Your task to perform on an android device: Show me recent news Image 0: 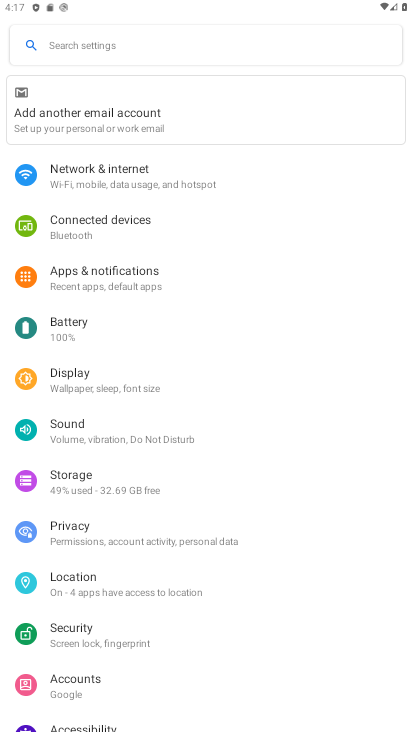
Step 0: press home button
Your task to perform on an android device: Show me recent news Image 1: 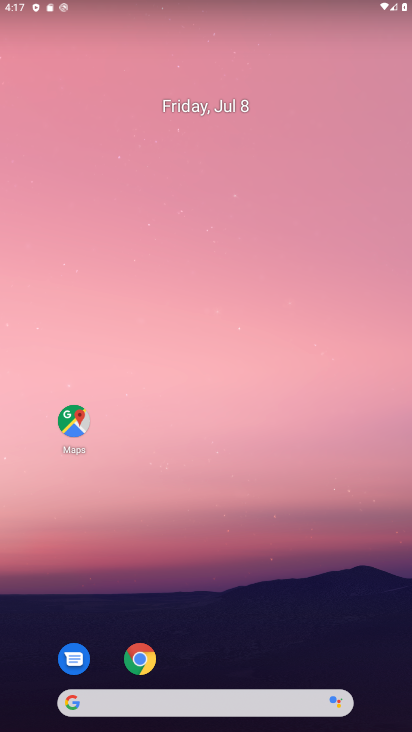
Step 1: click (144, 665)
Your task to perform on an android device: Show me recent news Image 2: 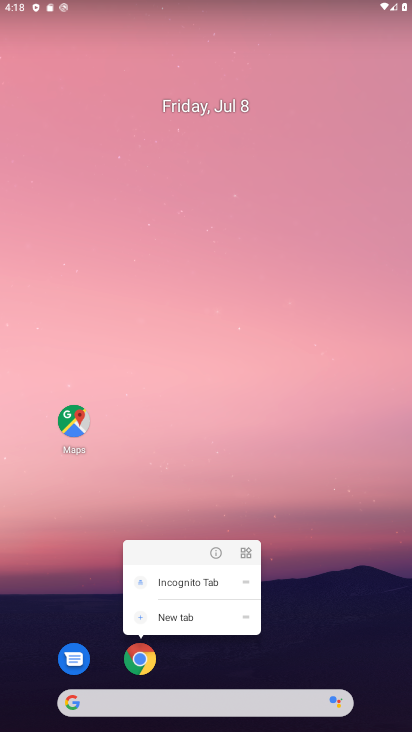
Step 2: click (152, 654)
Your task to perform on an android device: Show me recent news Image 3: 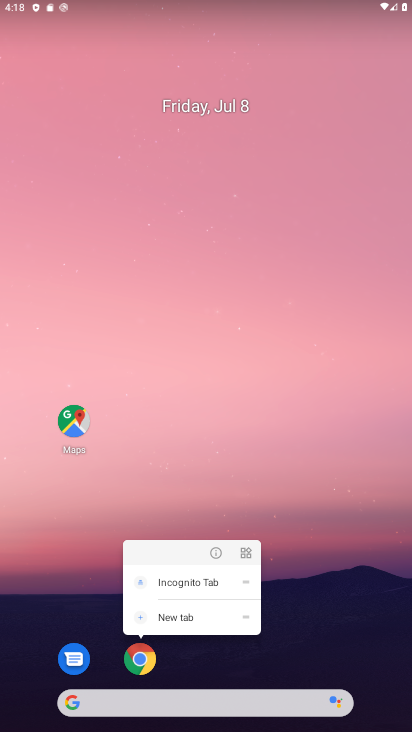
Step 3: click (152, 654)
Your task to perform on an android device: Show me recent news Image 4: 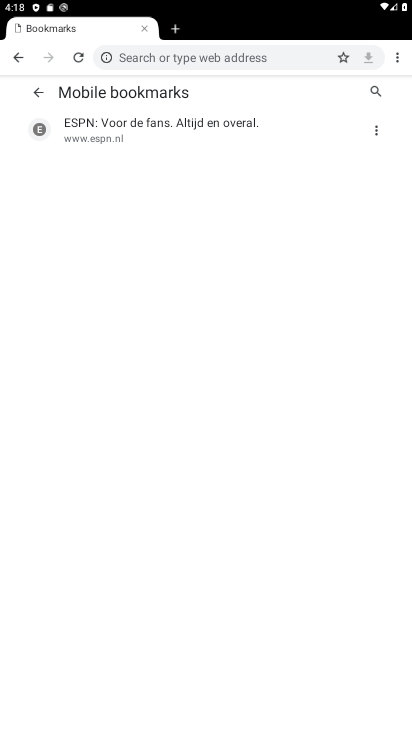
Step 4: click (253, 58)
Your task to perform on an android device: Show me recent news Image 5: 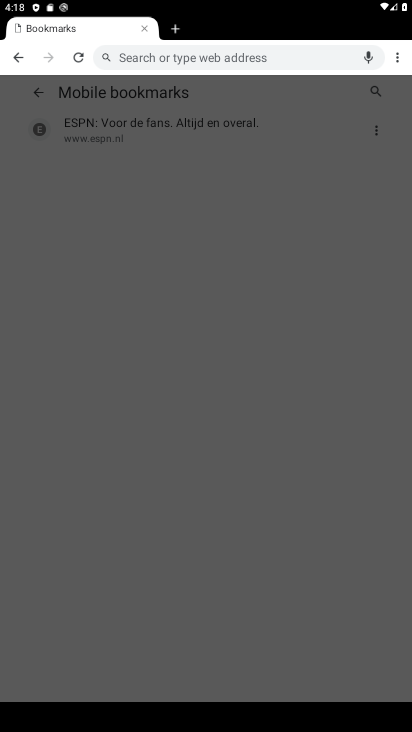
Step 5: type "news"
Your task to perform on an android device: Show me recent news Image 6: 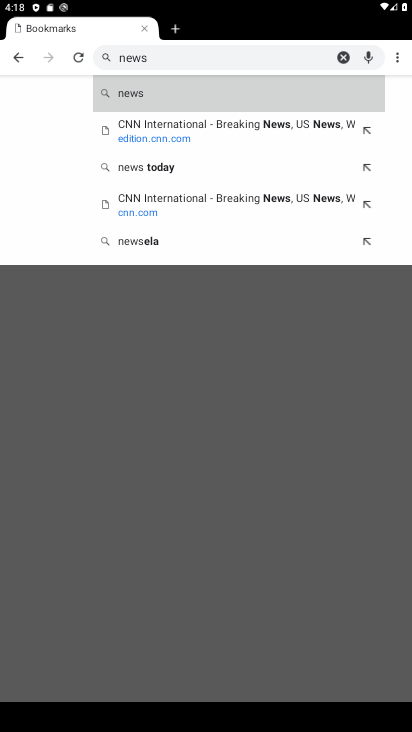
Step 6: click (150, 96)
Your task to perform on an android device: Show me recent news Image 7: 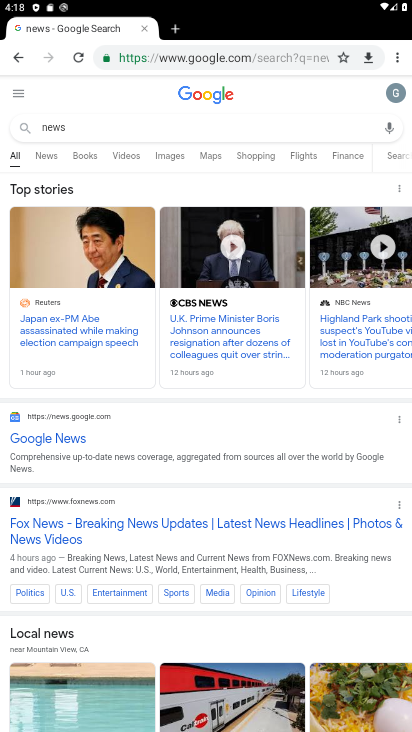
Step 7: task complete